Your task to perform on an android device: Go to notification settings Image 0: 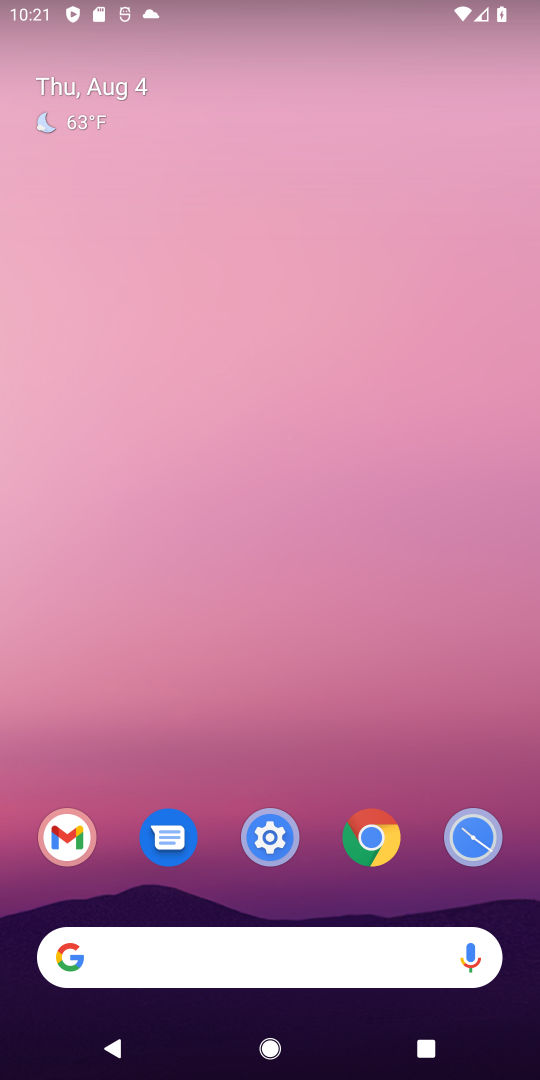
Step 0: drag from (214, 905) to (257, 494)
Your task to perform on an android device: Go to notification settings Image 1: 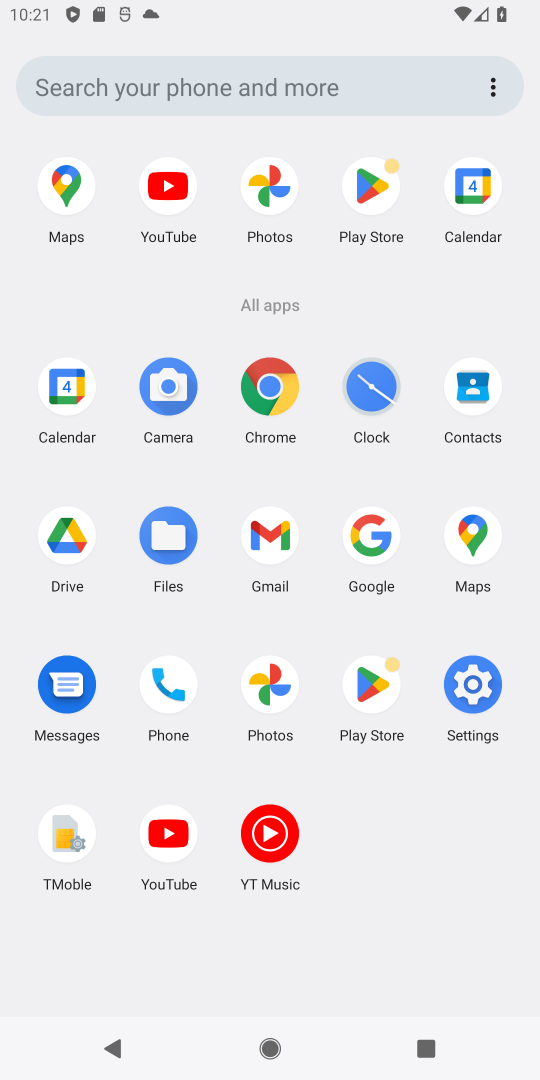
Step 1: click (465, 680)
Your task to perform on an android device: Go to notification settings Image 2: 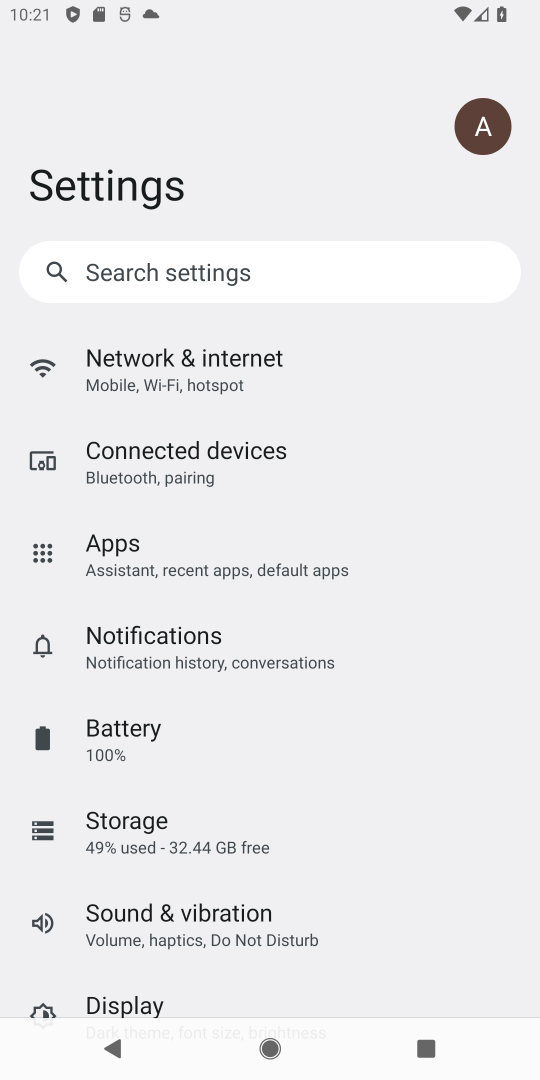
Step 2: click (201, 636)
Your task to perform on an android device: Go to notification settings Image 3: 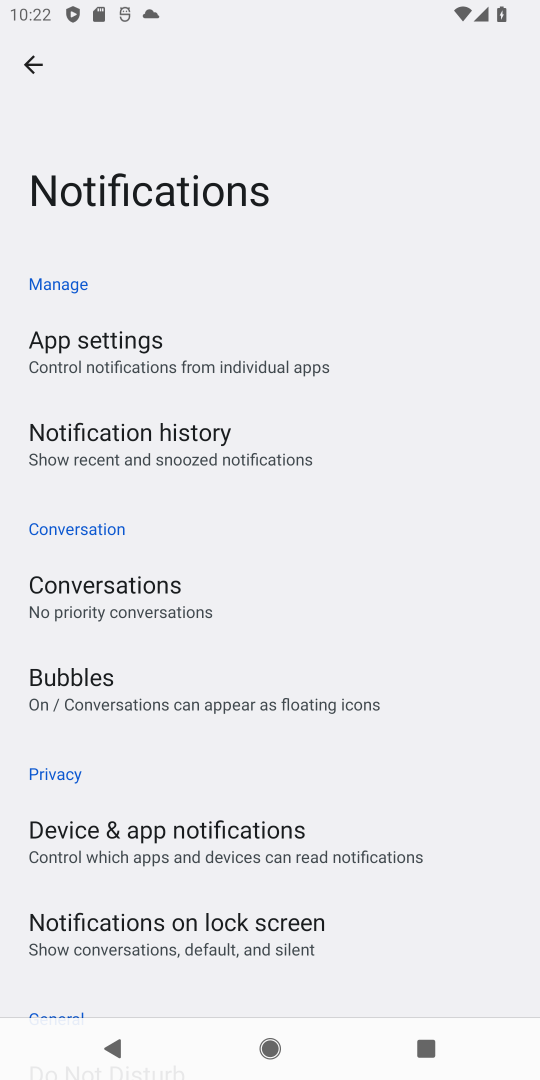
Step 3: task complete